Your task to perform on an android device: check battery use Image 0: 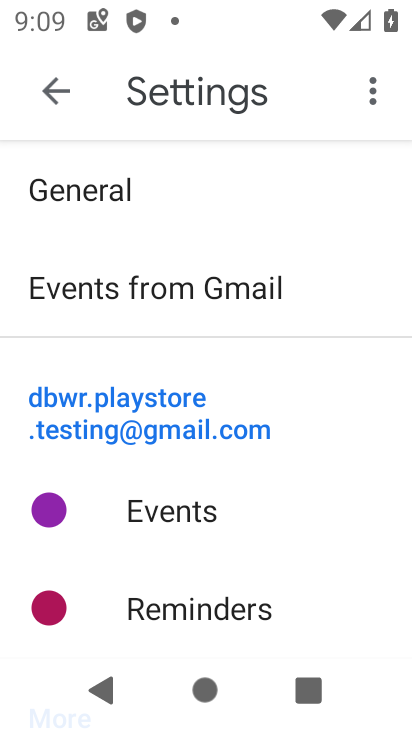
Step 0: press home button
Your task to perform on an android device: check battery use Image 1: 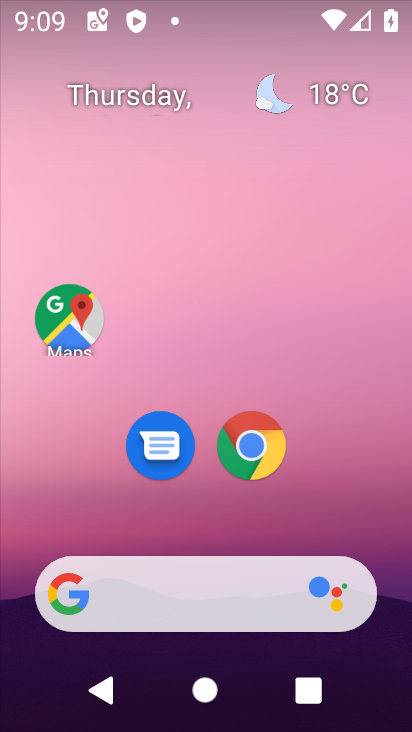
Step 1: drag from (353, 520) to (327, 21)
Your task to perform on an android device: check battery use Image 2: 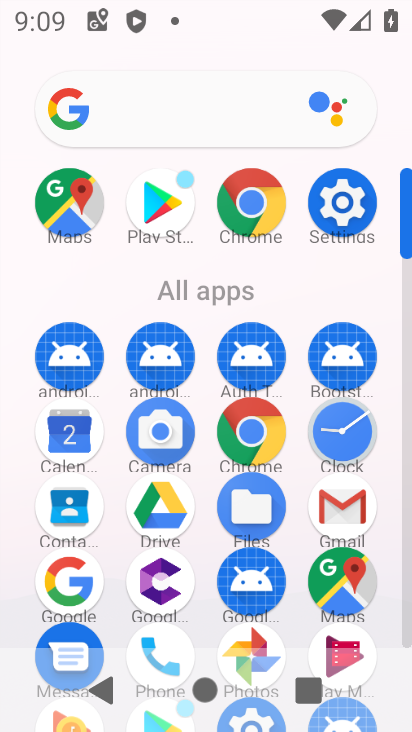
Step 2: click (340, 219)
Your task to perform on an android device: check battery use Image 3: 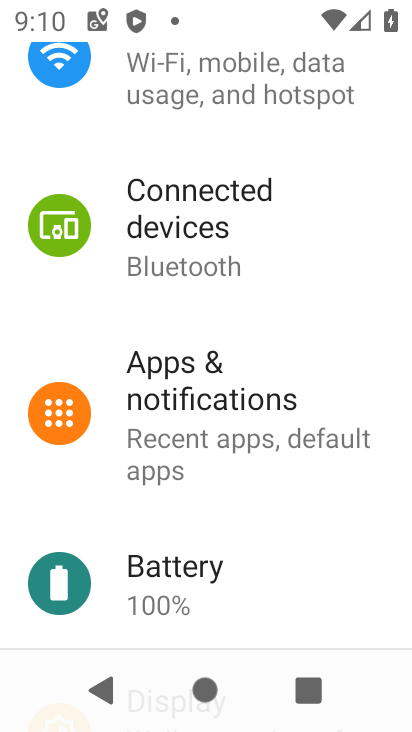
Step 3: drag from (329, 590) to (295, 332)
Your task to perform on an android device: check battery use Image 4: 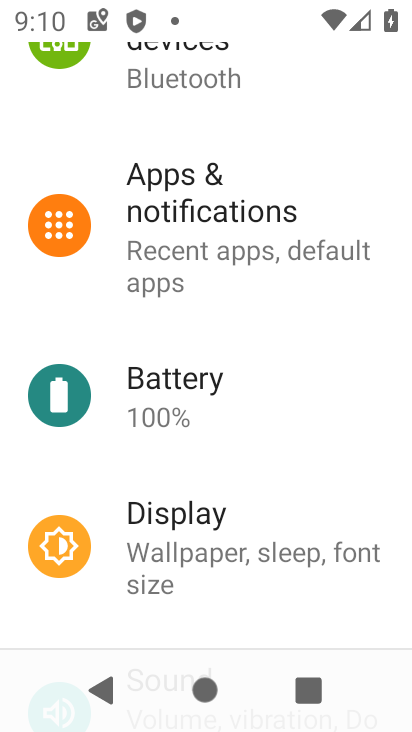
Step 4: click (299, 391)
Your task to perform on an android device: check battery use Image 5: 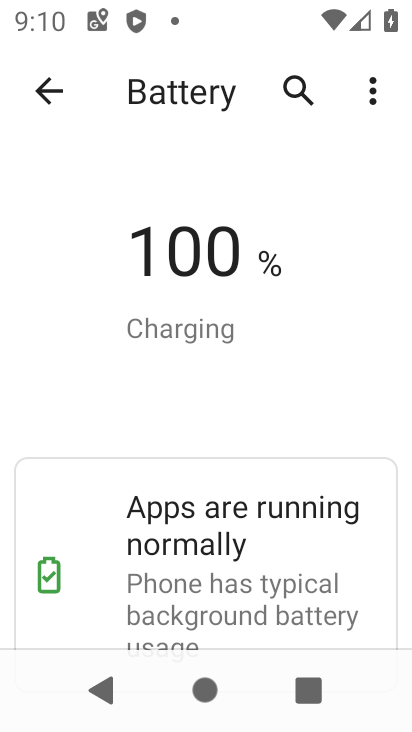
Step 5: click (376, 110)
Your task to perform on an android device: check battery use Image 6: 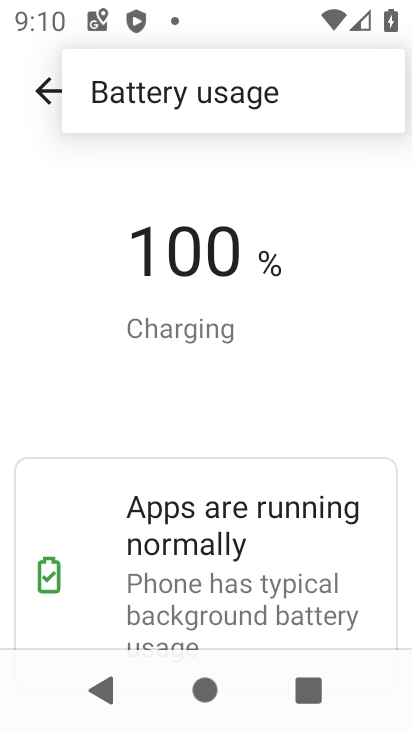
Step 6: click (281, 117)
Your task to perform on an android device: check battery use Image 7: 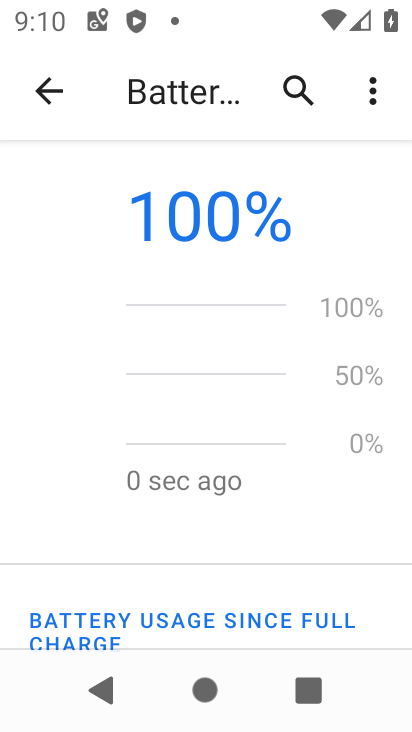
Step 7: task complete